Your task to perform on an android device: install app "Skype" Image 0: 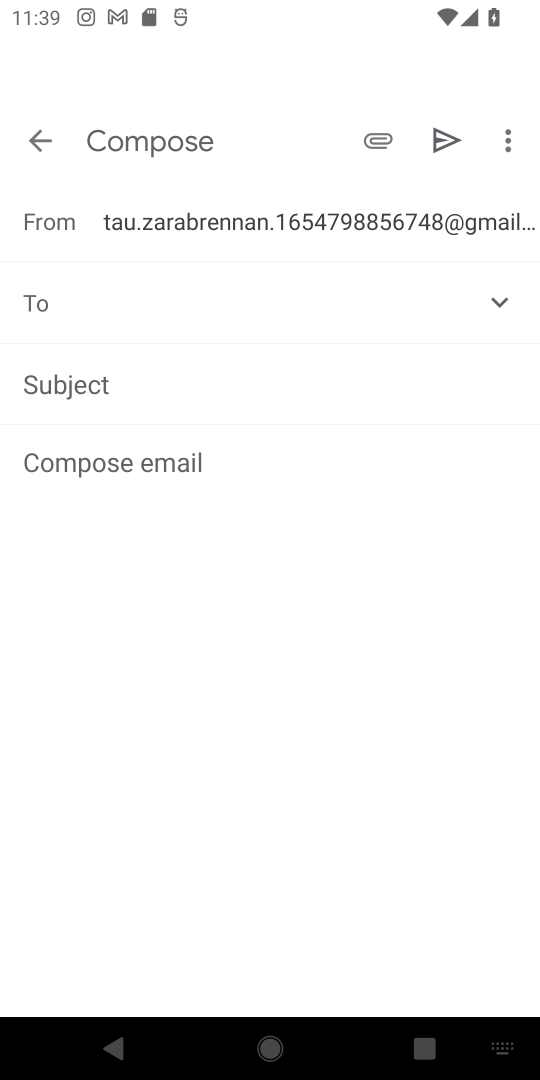
Step 0: press home button
Your task to perform on an android device: install app "Skype" Image 1: 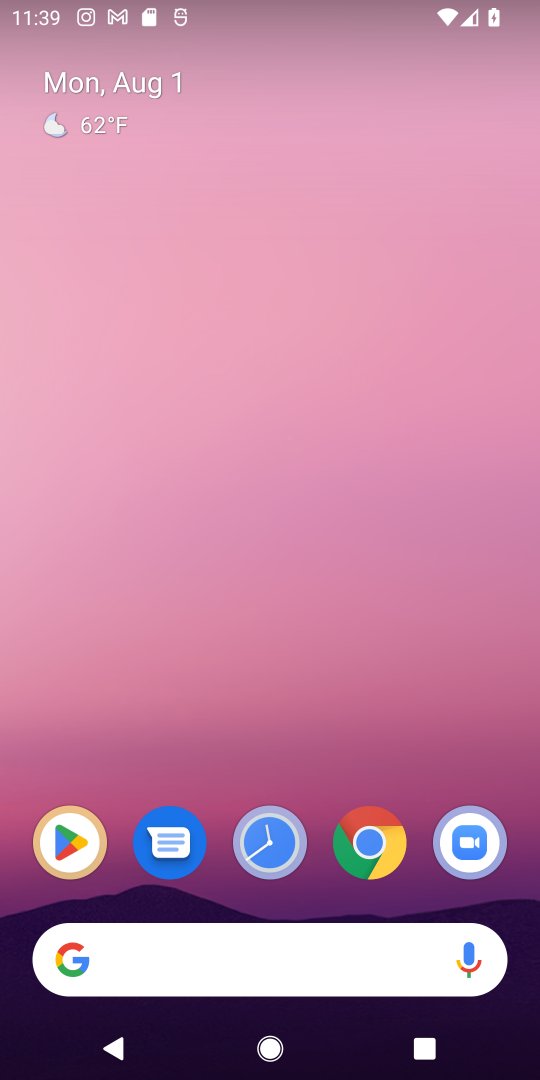
Step 1: click (65, 843)
Your task to perform on an android device: install app "Skype" Image 2: 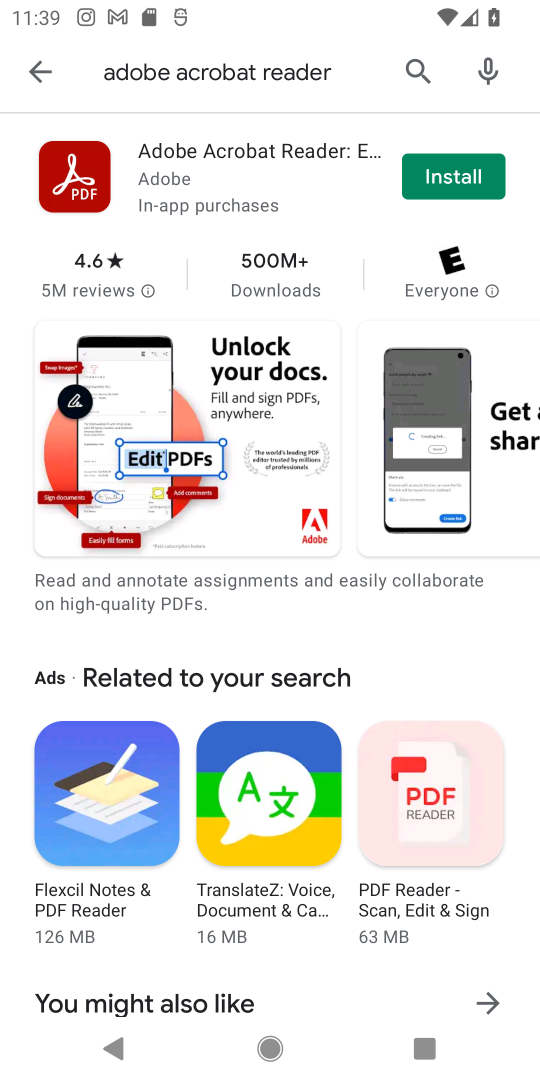
Step 2: click (426, 59)
Your task to perform on an android device: install app "Skype" Image 3: 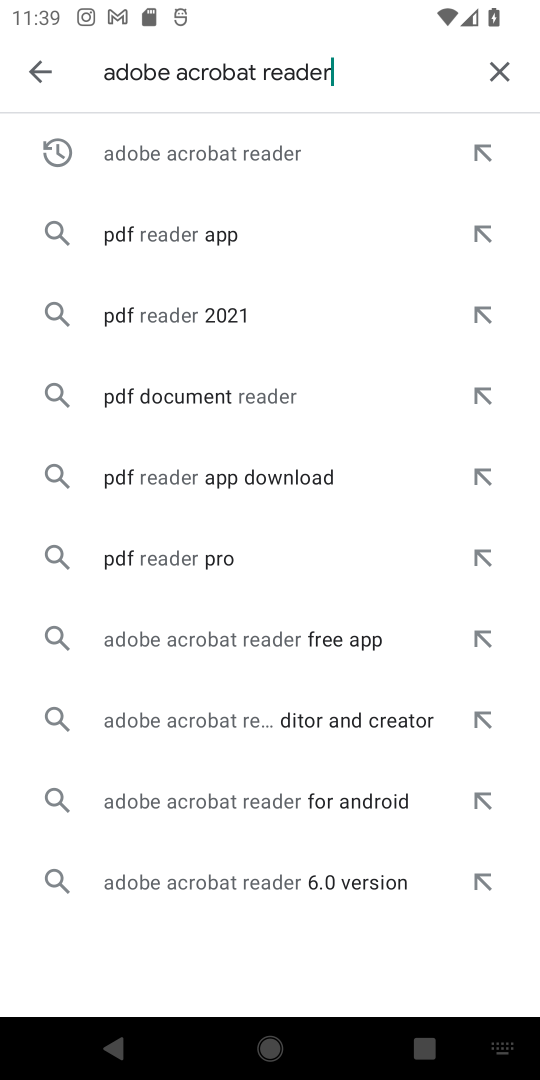
Step 3: click (503, 69)
Your task to perform on an android device: install app "Skype" Image 4: 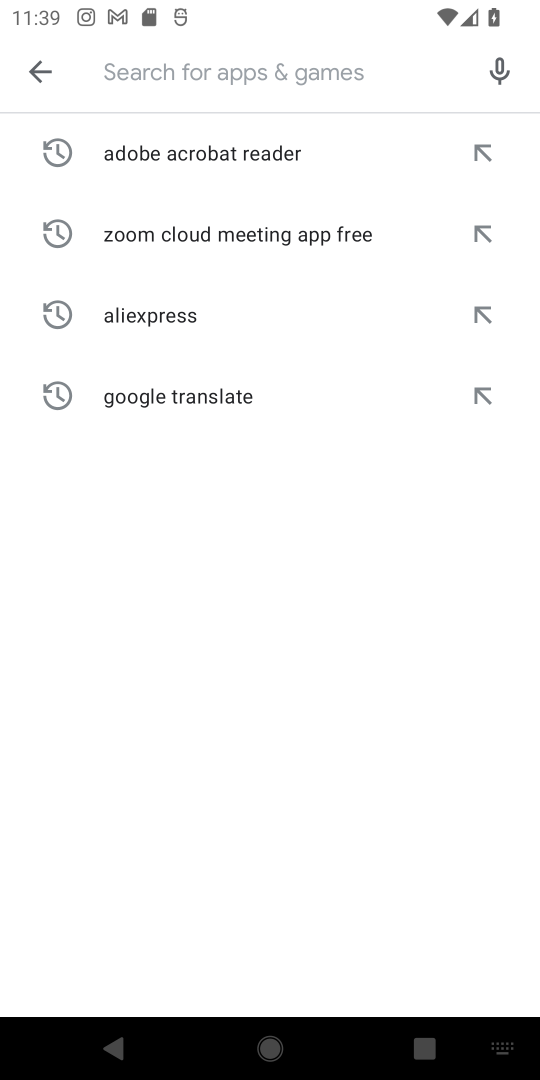
Step 4: click (261, 83)
Your task to perform on an android device: install app "Skype" Image 5: 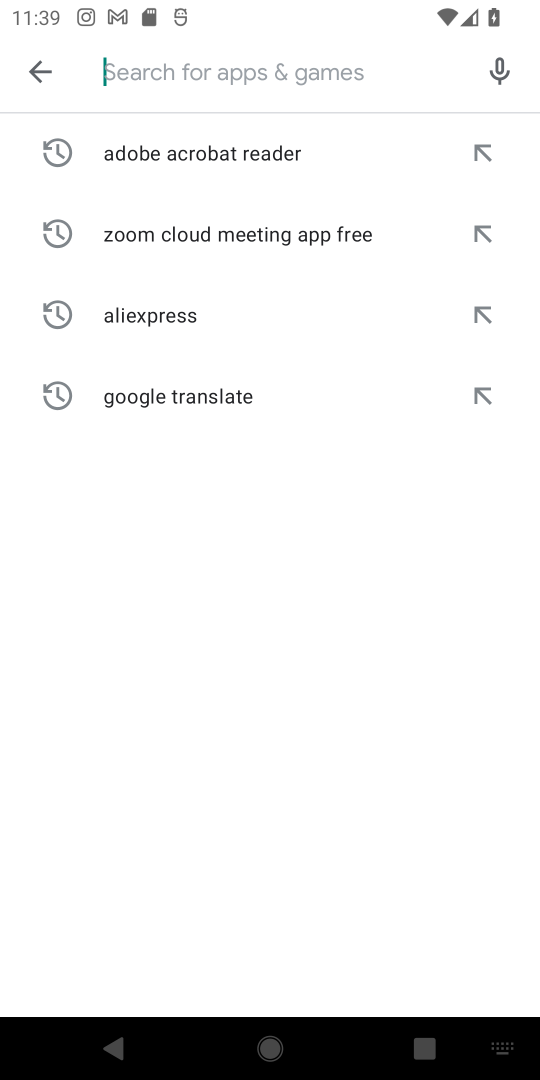
Step 5: type "skype"
Your task to perform on an android device: install app "Skype" Image 6: 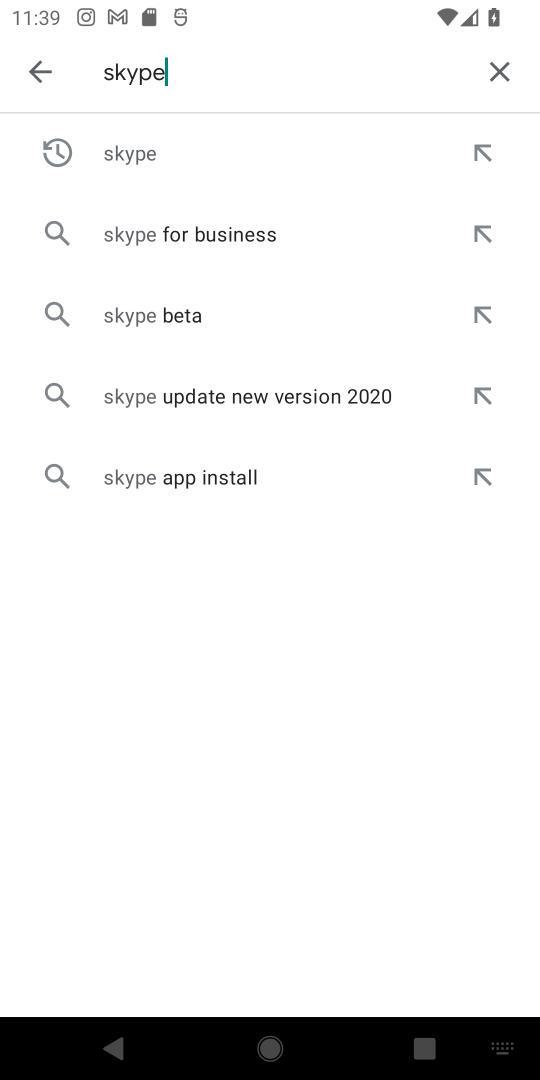
Step 6: click (121, 157)
Your task to perform on an android device: install app "Skype" Image 7: 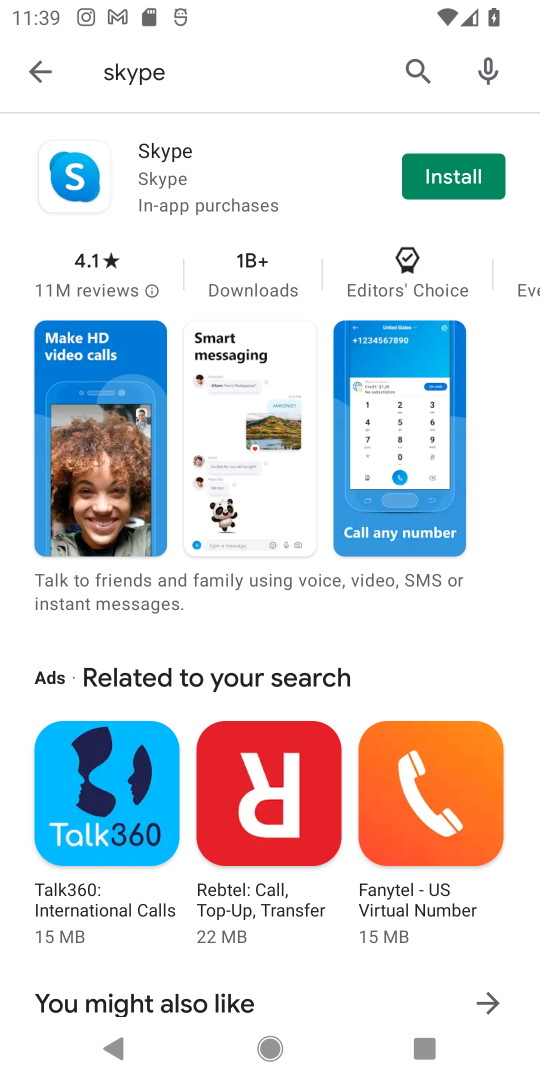
Step 7: click (432, 176)
Your task to perform on an android device: install app "Skype" Image 8: 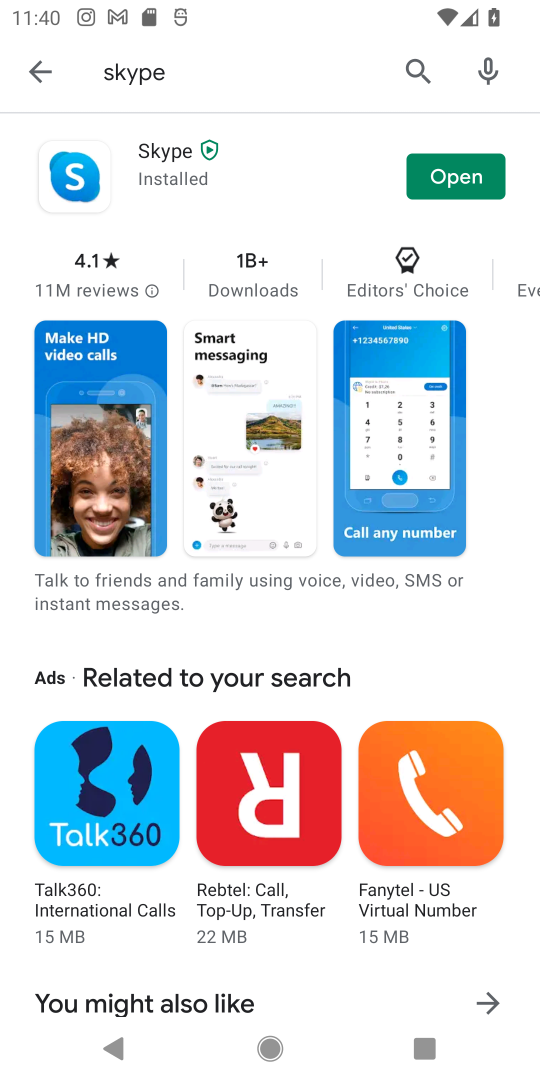
Step 8: click (470, 181)
Your task to perform on an android device: install app "Skype" Image 9: 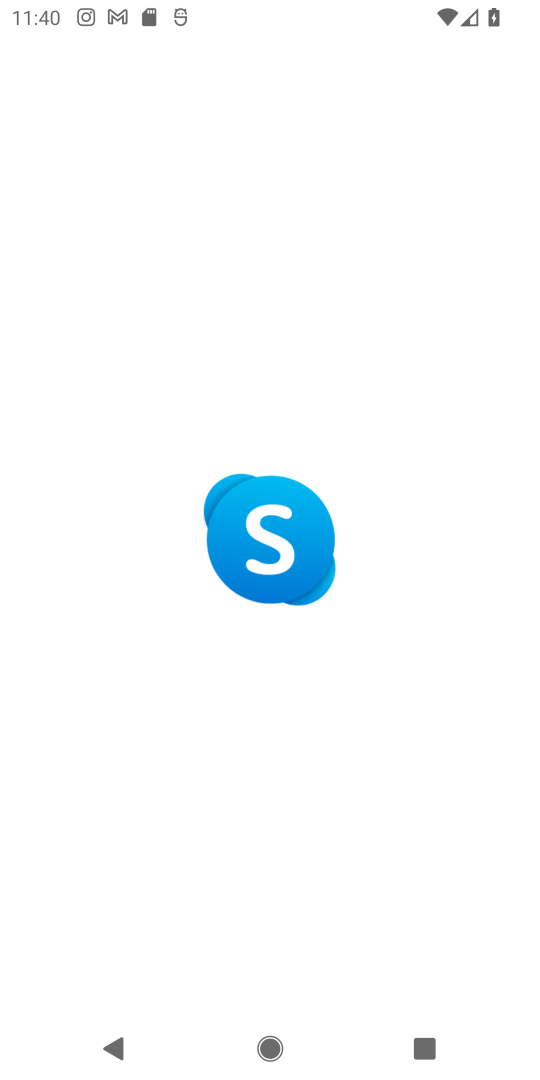
Step 9: task complete